Your task to perform on an android device: allow cookies in the chrome app Image 0: 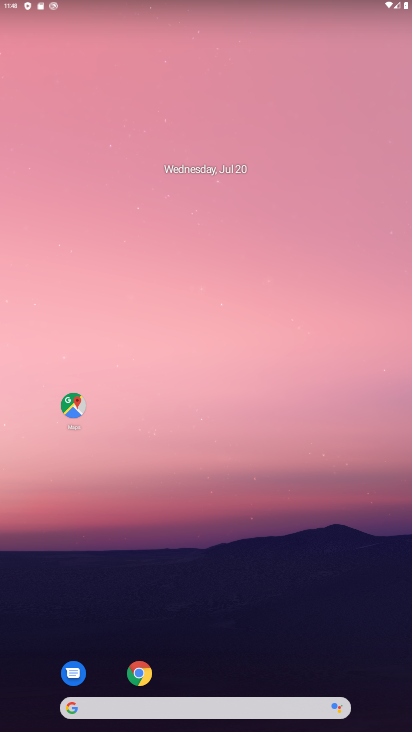
Step 0: drag from (237, 680) to (237, 254)
Your task to perform on an android device: allow cookies in the chrome app Image 1: 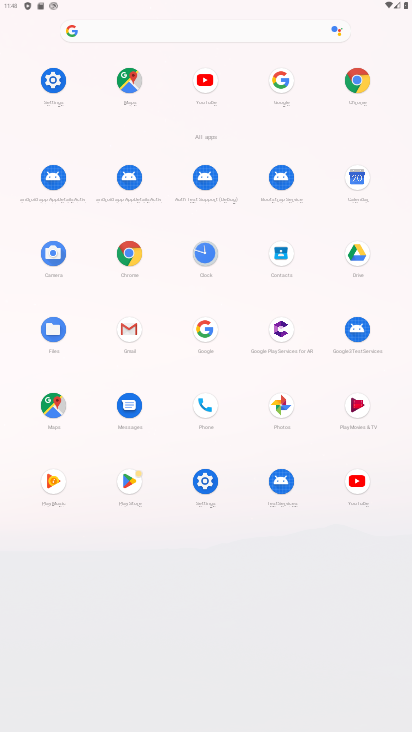
Step 1: click (127, 259)
Your task to perform on an android device: allow cookies in the chrome app Image 2: 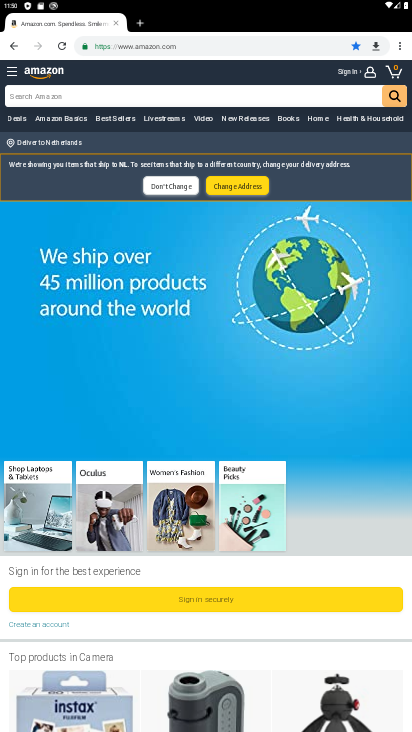
Step 2: click (398, 43)
Your task to perform on an android device: allow cookies in the chrome app Image 3: 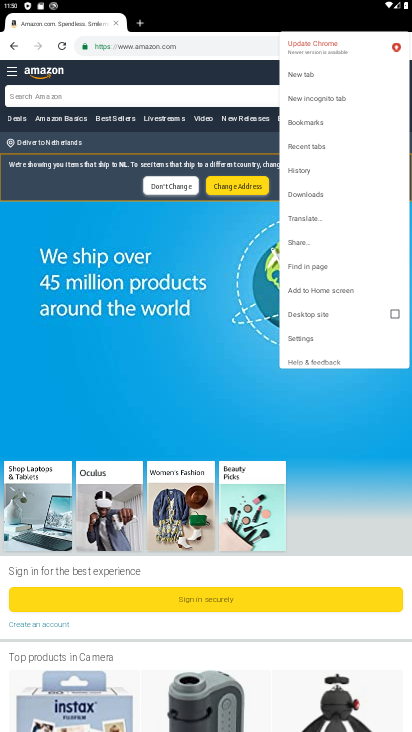
Step 3: click (302, 338)
Your task to perform on an android device: allow cookies in the chrome app Image 4: 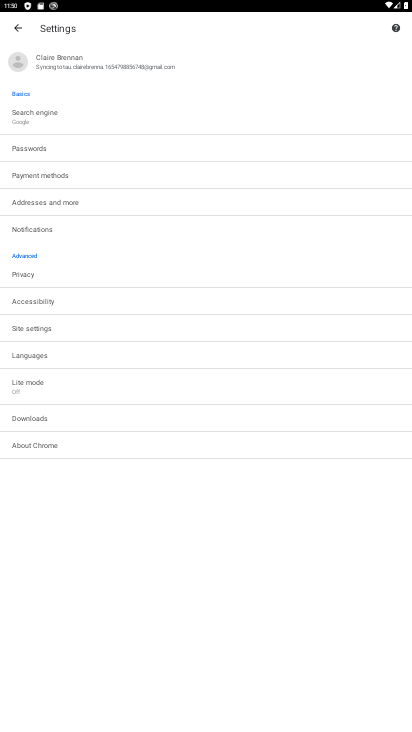
Step 4: click (38, 328)
Your task to perform on an android device: allow cookies in the chrome app Image 5: 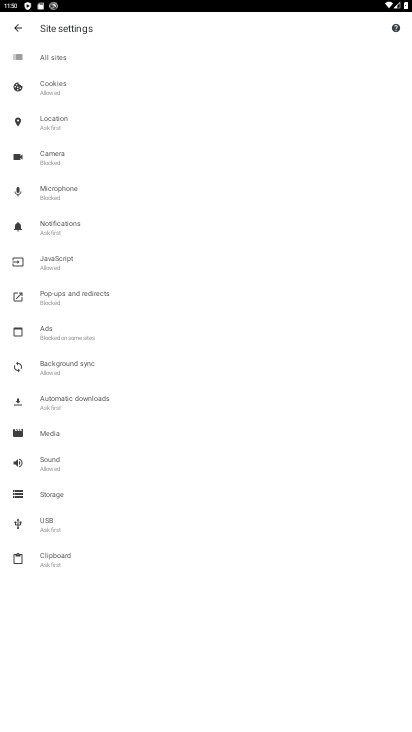
Step 5: click (63, 89)
Your task to perform on an android device: allow cookies in the chrome app Image 6: 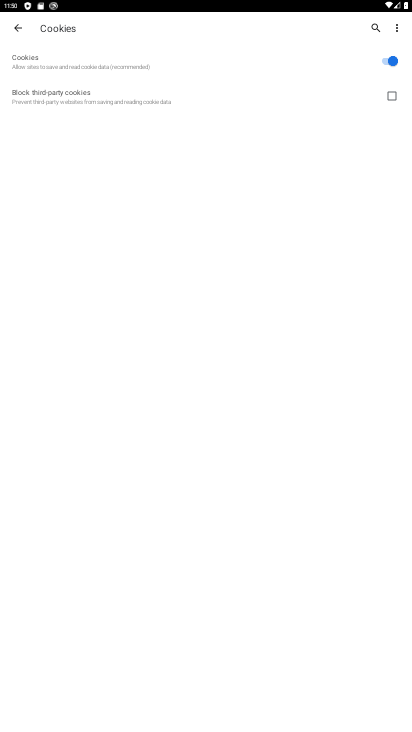
Step 6: task complete